Your task to perform on an android device: Open network settings Image 0: 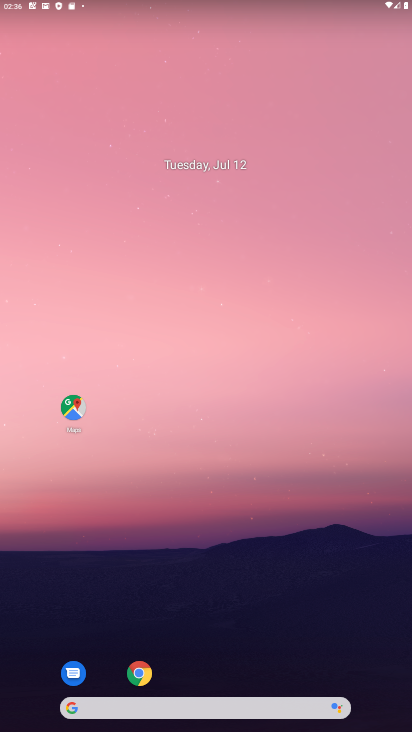
Step 0: press home button
Your task to perform on an android device: Open network settings Image 1: 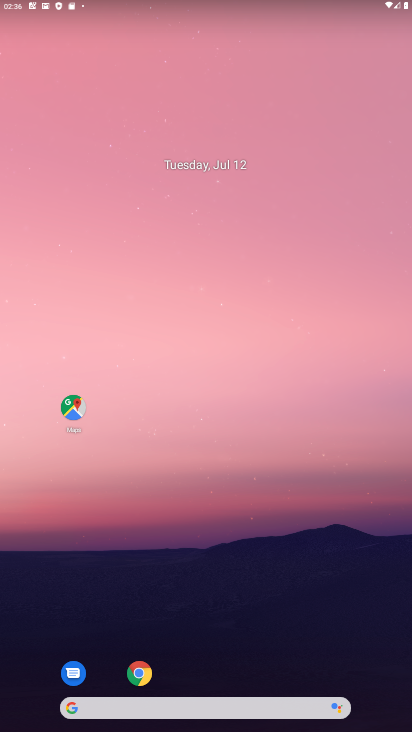
Step 1: drag from (235, 621) to (196, 108)
Your task to perform on an android device: Open network settings Image 2: 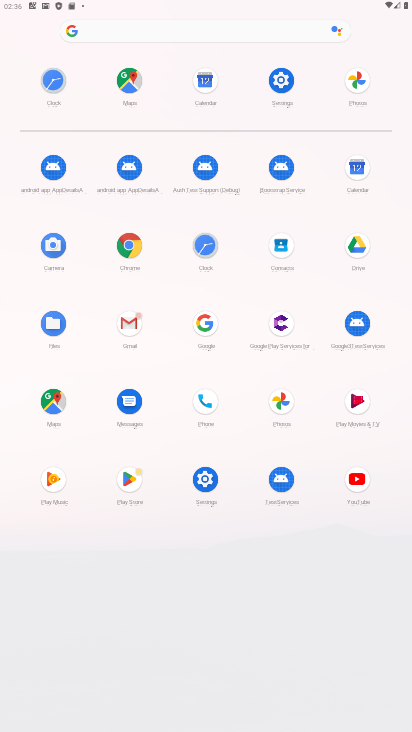
Step 2: click (282, 79)
Your task to perform on an android device: Open network settings Image 3: 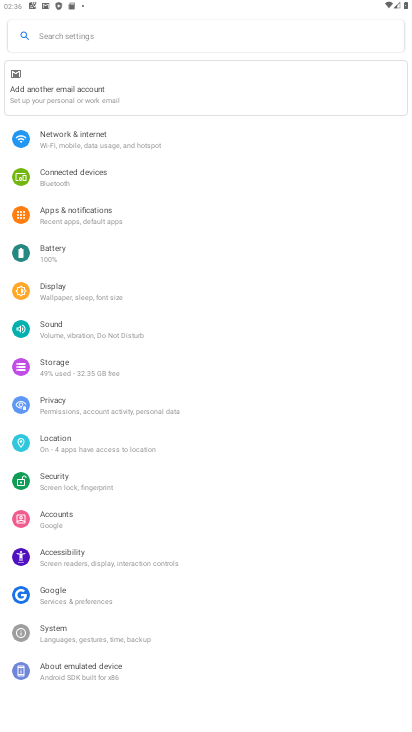
Step 3: click (58, 142)
Your task to perform on an android device: Open network settings Image 4: 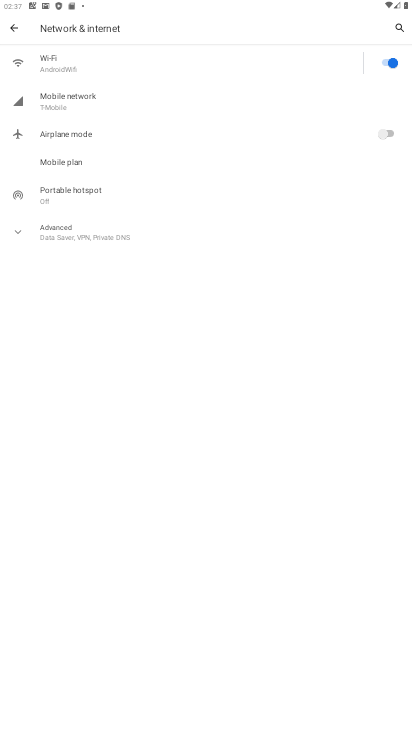
Step 4: task complete